Your task to perform on an android device: turn off javascript in the chrome app Image 0: 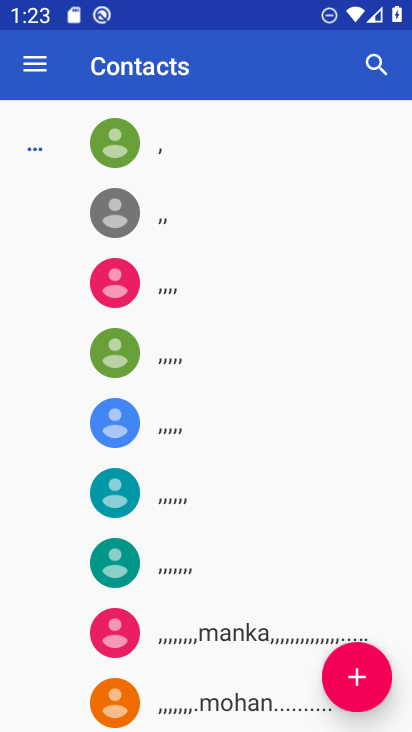
Step 0: press home button
Your task to perform on an android device: turn off javascript in the chrome app Image 1: 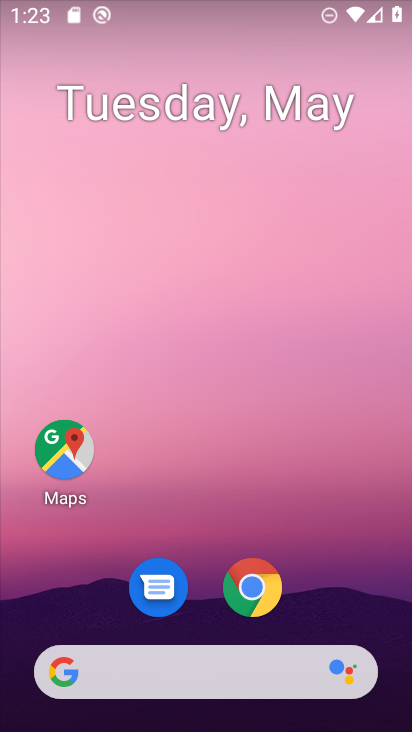
Step 1: click (252, 586)
Your task to perform on an android device: turn off javascript in the chrome app Image 2: 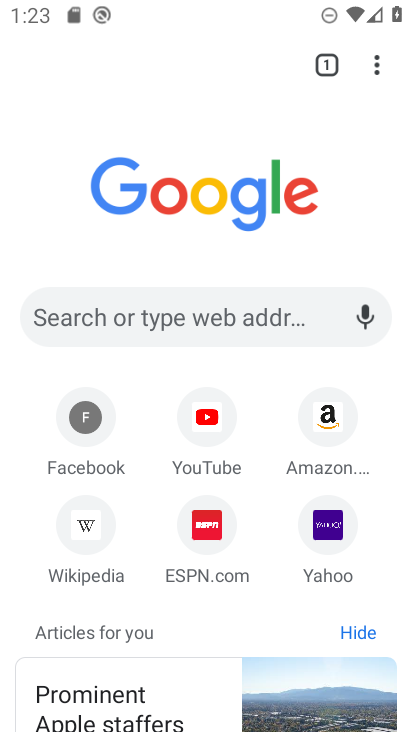
Step 2: click (369, 57)
Your task to perform on an android device: turn off javascript in the chrome app Image 3: 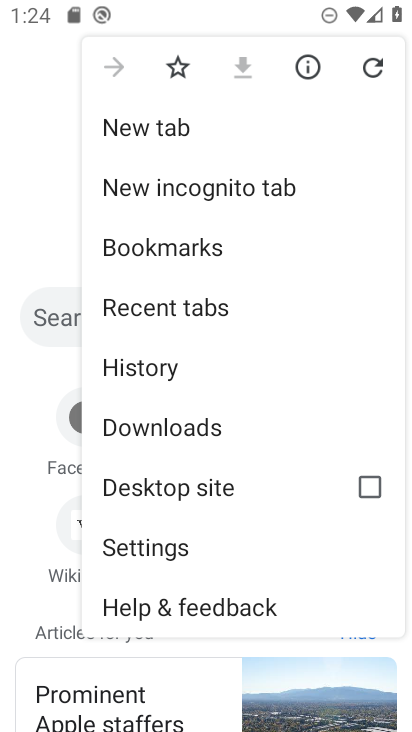
Step 3: click (270, 547)
Your task to perform on an android device: turn off javascript in the chrome app Image 4: 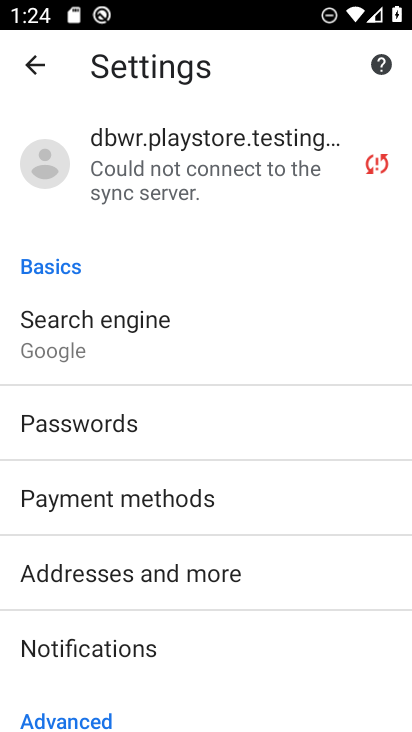
Step 4: drag from (117, 695) to (195, 206)
Your task to perform on an android device: turn off javascript in the chrome app Image 5: 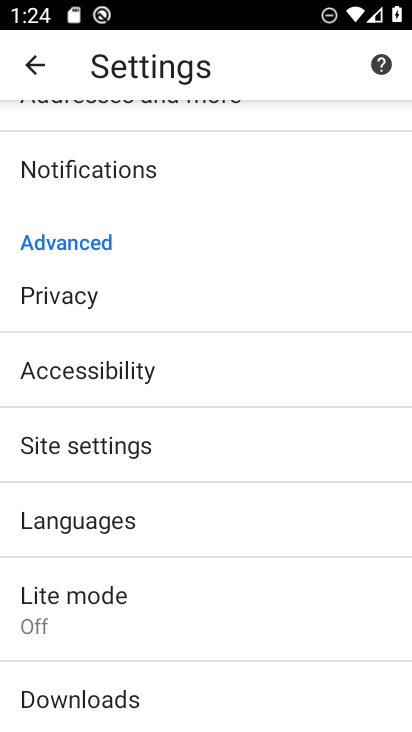
Step 5: drag from (168, 590) to (272, 50)
Your task to perform on an android device: turn off javascript in the chrome app Image 6: 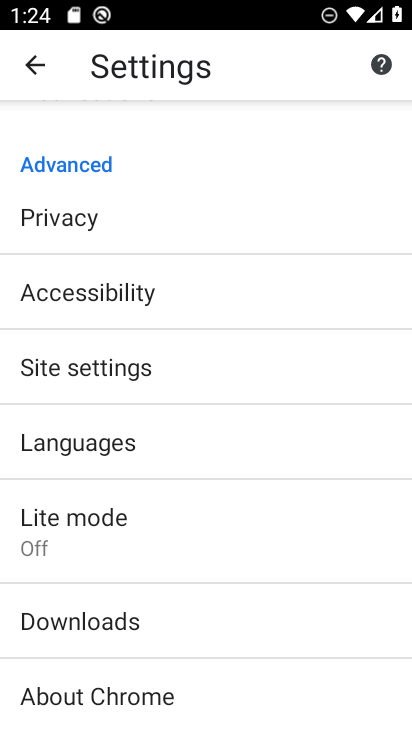
Step 6: drag from (170, 628) to (256, 144)
Your task to perform on an android device: turn off javascript in the chrome app Image 7: 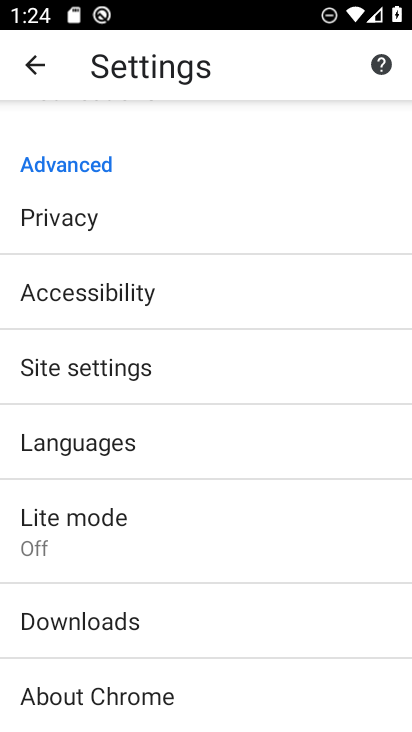
Step 7: drag from (99, 625) to (291, 145)
Your task to perform on an android device: turn off javascript in the chrome app Image 8: 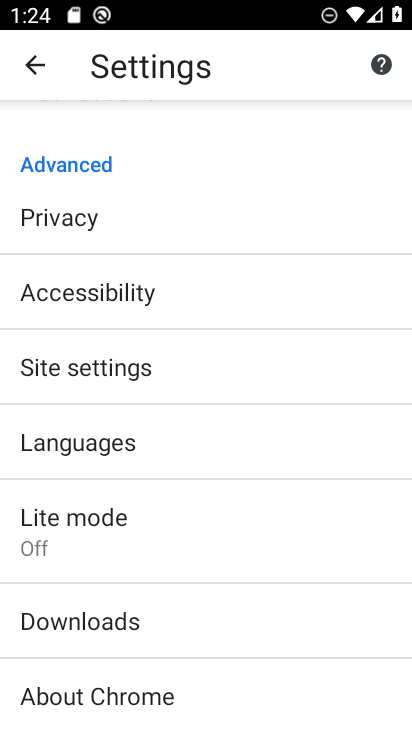
Step 8: click (242, 366)
Your task to perform on an android device: turn off javascript in the chrome app Image 9: 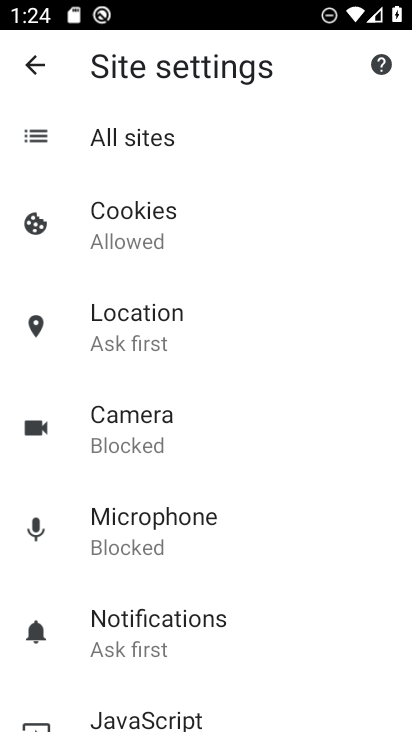
Step 9: drag from (129, 618) to (200, 122)
Your task to perform on an android device: turn off javascript in the chrome app Image 10: 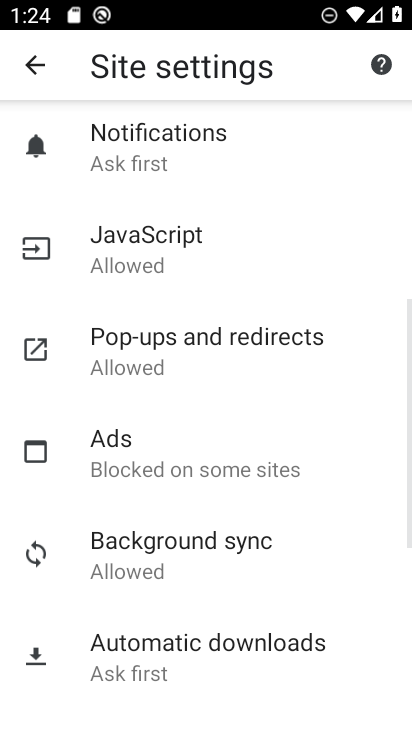
Step 10: click (182, 274)
Your task to perform on an android device: turn off javascript in the chrome app Image 11: 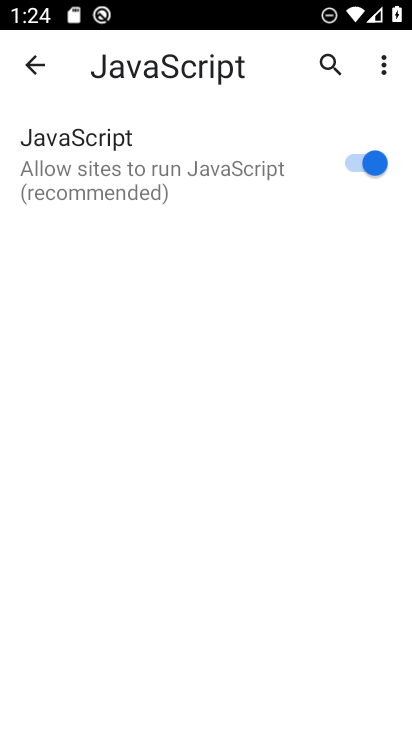
Step 11: click (368, 147)
Your task to perform on an android device: turn off javascript in the chrome app Image 12: 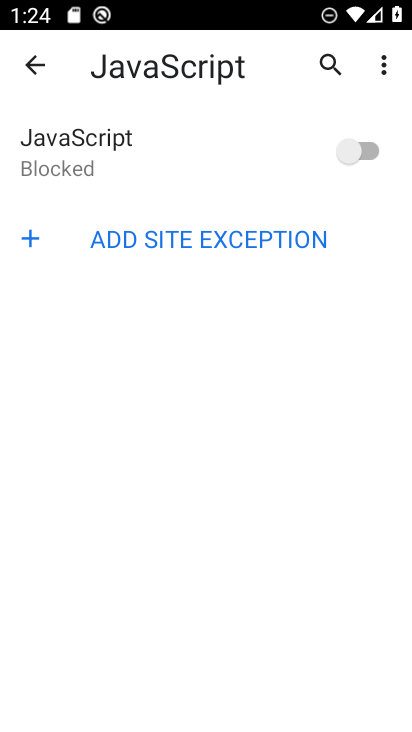
Step 12: task complete